Your task to perform on an android device: check google app version Image 0: 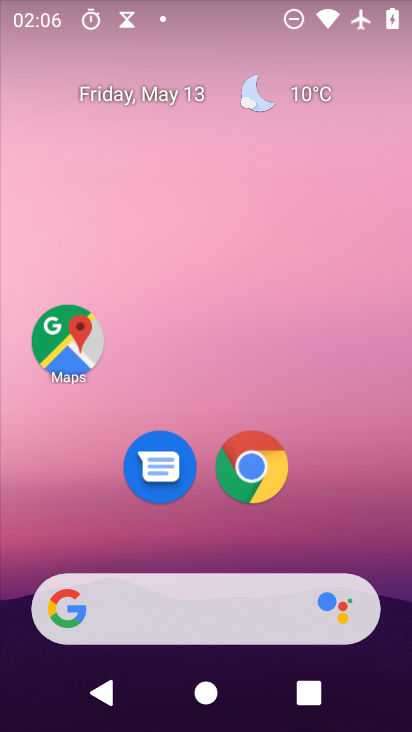
Step 0: drag from (329, 528) to (210, 39)
Your task to perform on an android device: check google app version Image 1: 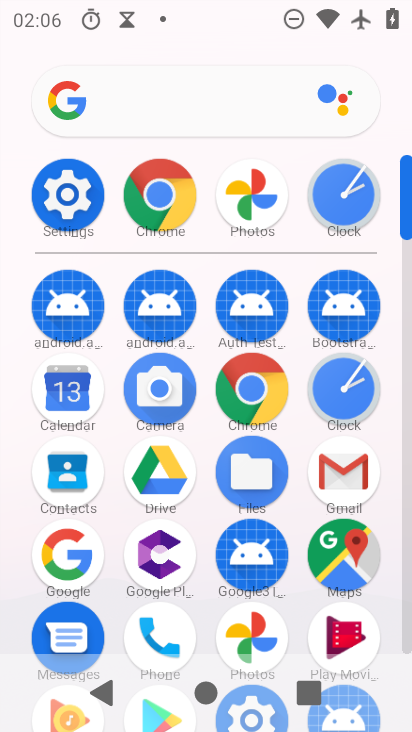
Step 1: click (64, 562)
Your task to perform on an android device: check google app version Image 2: 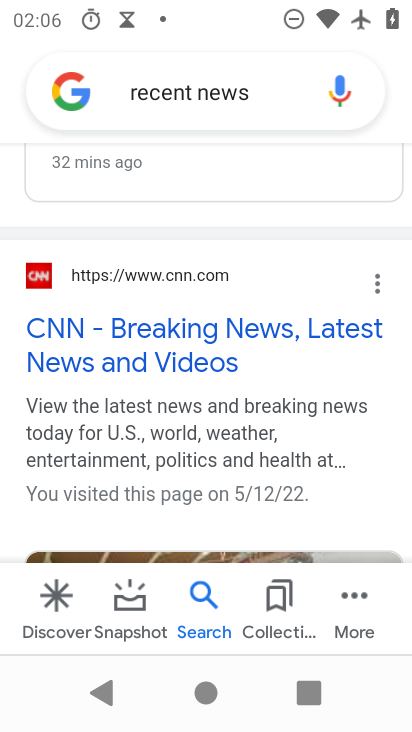
Step 2: click (371, 620)
Your task to perform on an android device: check google app version Image 3: 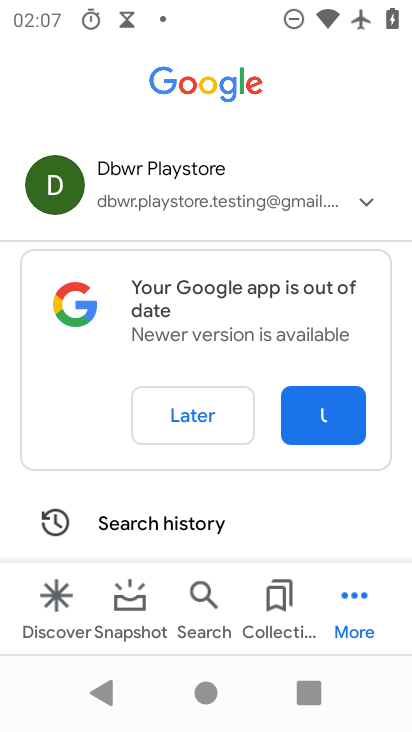
Step 3: click (354, 604)
Your task to perform on an android device: check google app version Image 4: 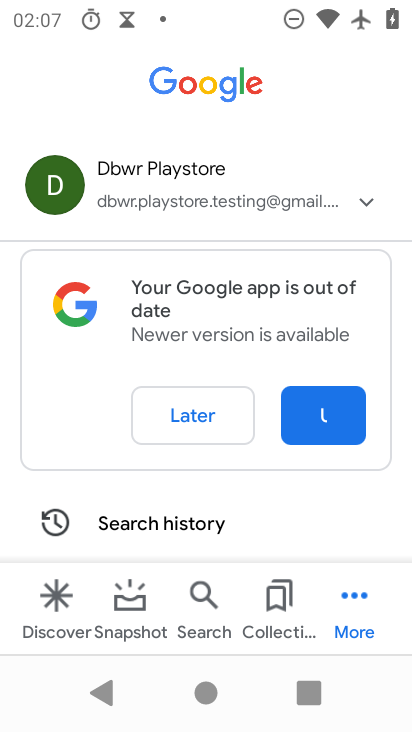
Step 4: drag from (278, 506) to (241, 145)
Your task to perform on an android device: check google app version Image 5: 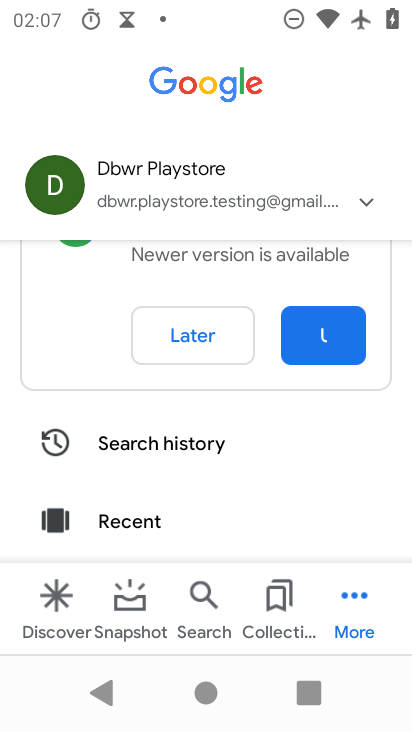
Step 5: drag from (221, 522) to (206, 180)
Your task to perform on an android device: check google app version Image 6: 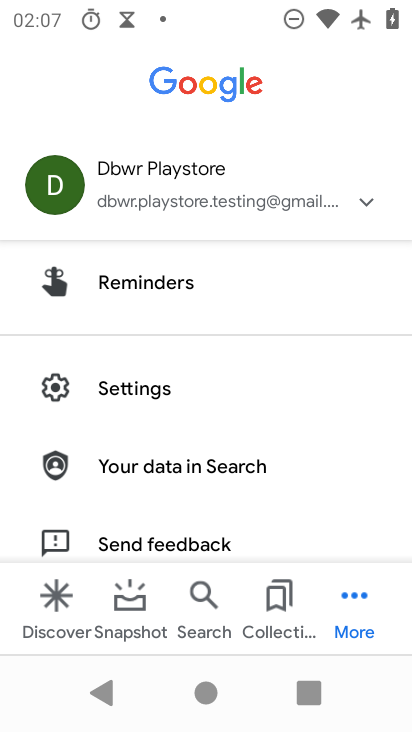
Step 6: click (154, 386)
Your task to perform on an android device: check google app version Image 7: 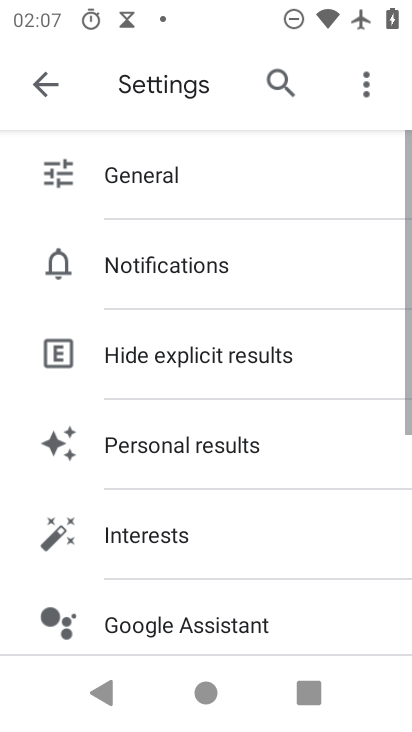
Step 7: drag from (209, 594) to (215, 253)
Your task to perform on an android device: check google app version Image 8: 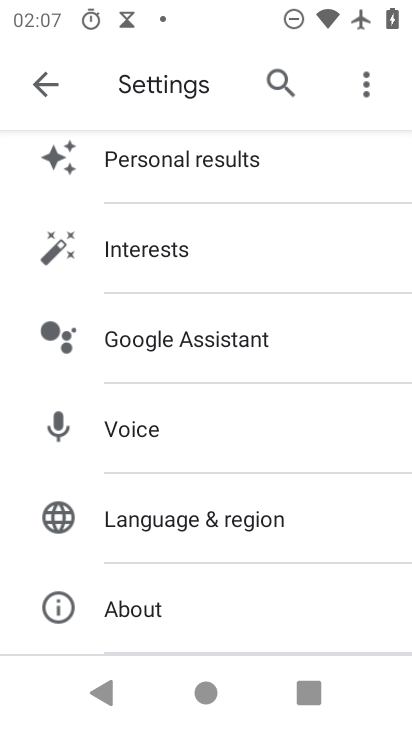
Step 8: click (199, 603)
Your task to perform on an android device: check google app version Image 9: 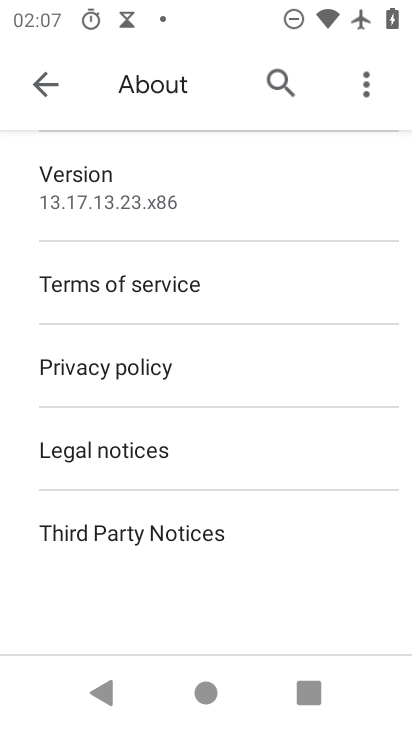
Step 9: click (143, 187)
Your task to perform on an android device: check google app version Image 10: 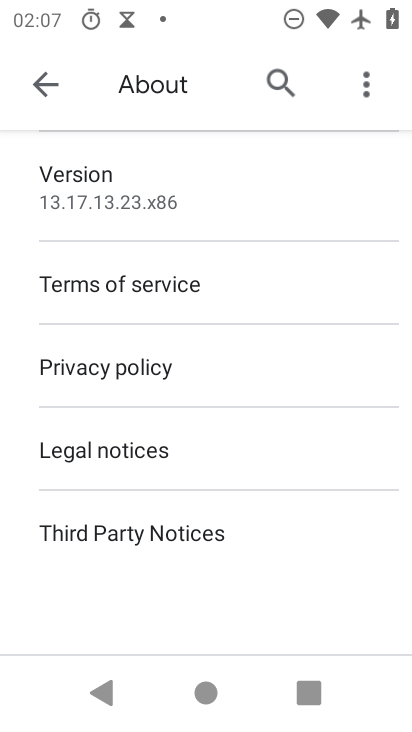
Step 10: task complete